Your task to perform on an android device: Open Google Chrome and click the shortcut for Amazon.com Image 0: 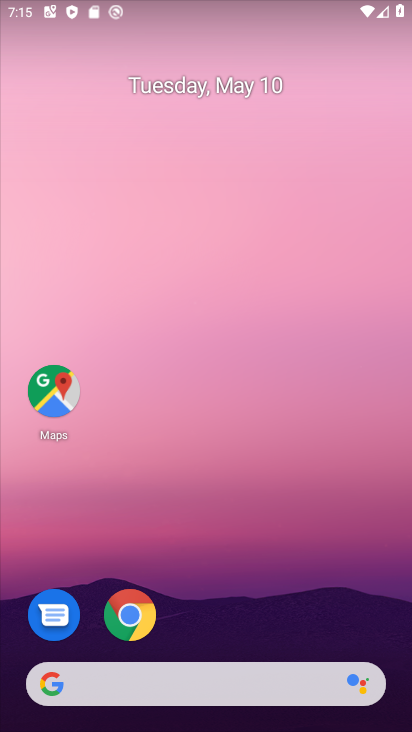
Step 0: click (128, 615)
Your task to perform on an android device: Open Google Chrome and click the shortcut for Amazon.com Image 1: 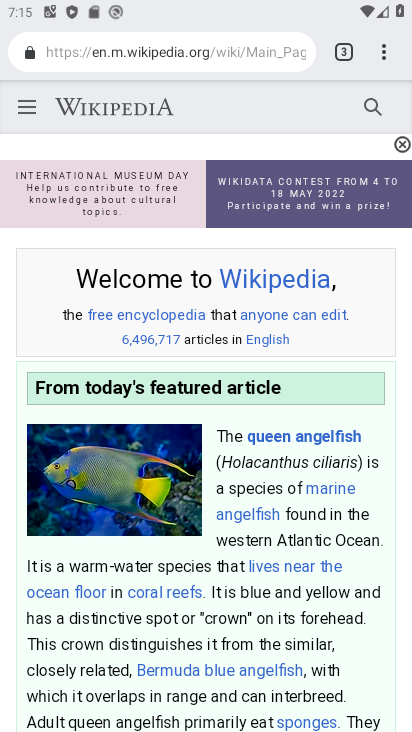
Step 1: click (388, 50)
Your task to perform on an android device: Open Google Chrome and click the shortcut for Amazon.com Image 2: 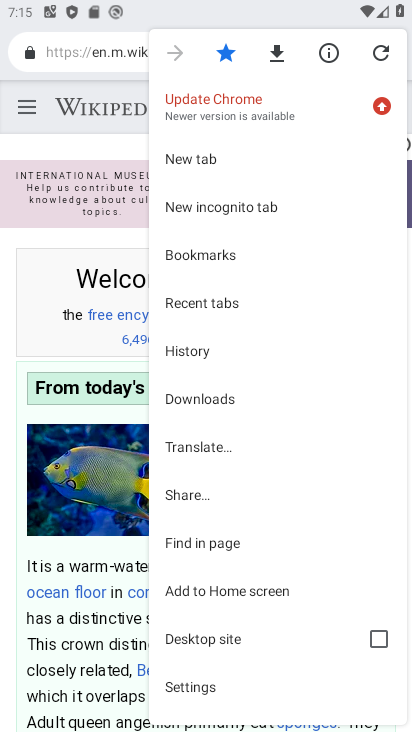
Step 2: click (203, 157)
Your task to perform on an android device: Open Google Chrome and click the shortcut for Amazon.com Image 3: 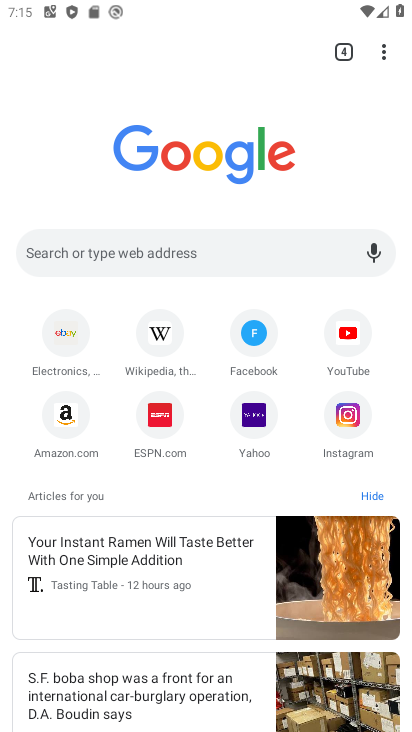
Step 3: click (63, 417)
Your task to perform on an android device: Open Google Chrome and click the shortcut for Amazon.com Image 4: 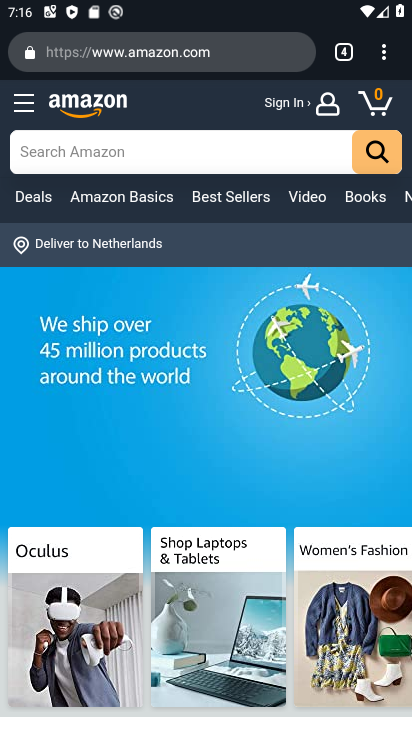
Step 4: task complete